Your task to perform on an android device: Is it going to rain this weekend? Image 0: 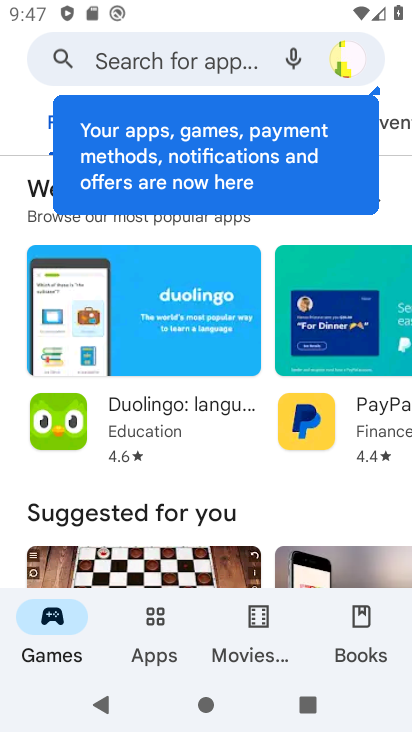
Step 0: press home button
Your task to perform on an android device: Is it going to rain this weekend? Image 1: 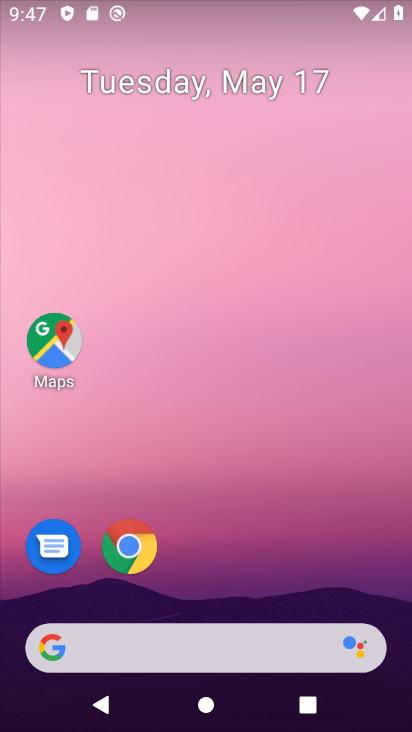
Step 1: drag from (270, 595) to (238, 225)
Your task to perform on an android device: Is it going to rain this weekend? Image 2: 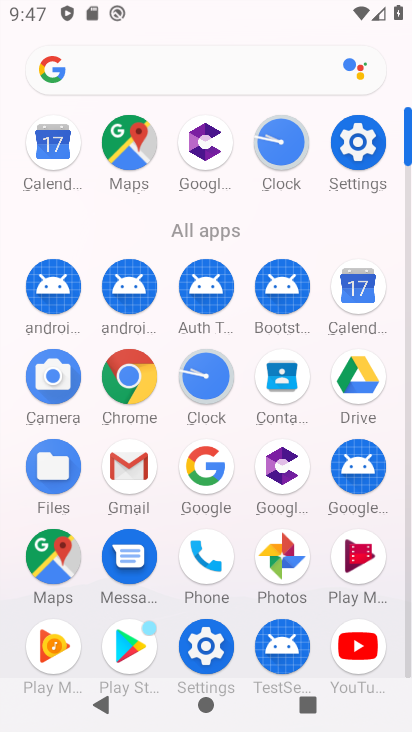
Step 2: click (114, 369)
Your task to perform on an android device: Is it going to rain this weekend? Image 3: 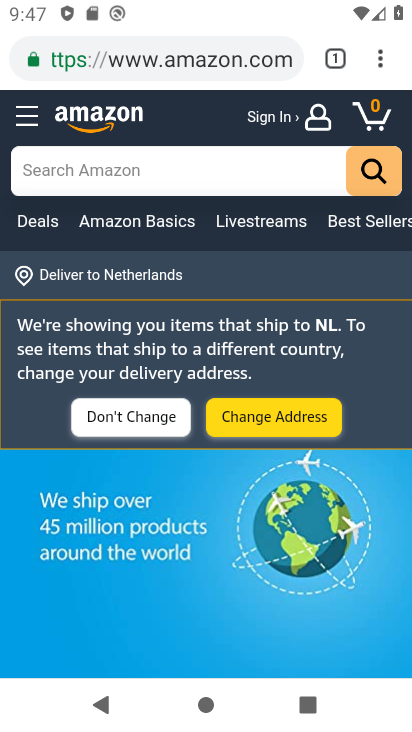
Step 3: click (371, 54)
Your task to perform on an android device: Is it going to rain this weekend? Image 4: 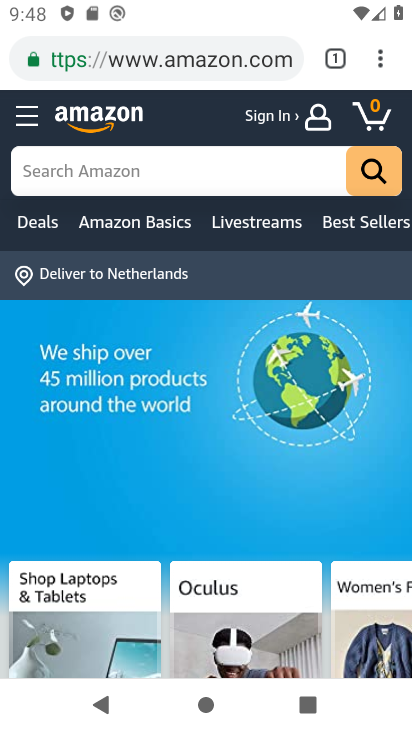
Step 4: click (380, 57)
Your task to perform on an android device: Is it going to rain this weekend? Image 5: 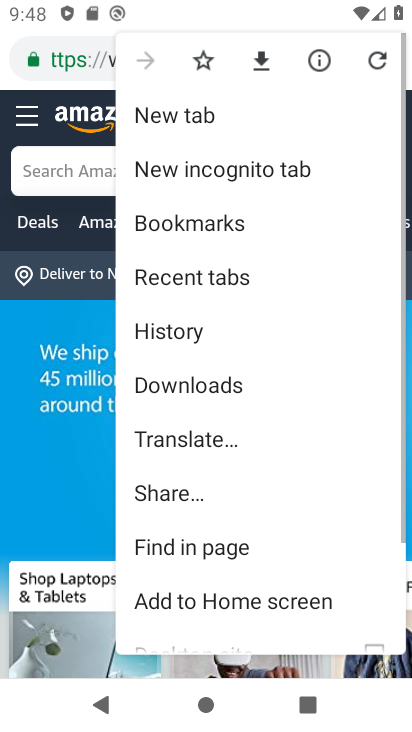
Step 5: click (190, 114)
Your task to perform on an android device: Is it going to rain this weekend? Image 6: 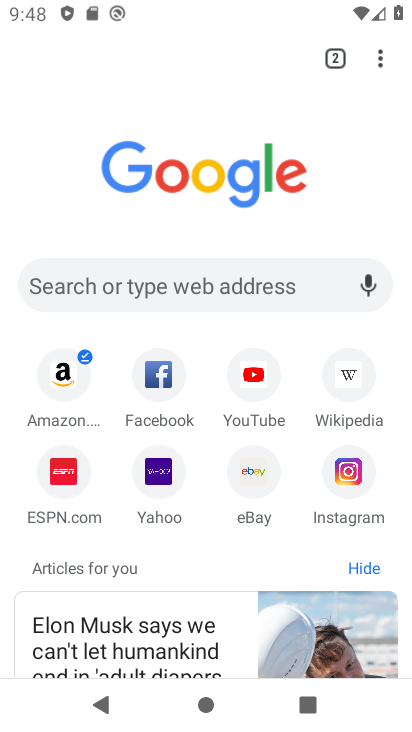
Step 6: click (223, 421)
Your task to perform on an android device: Is it going to rain this weekend? Image 7: 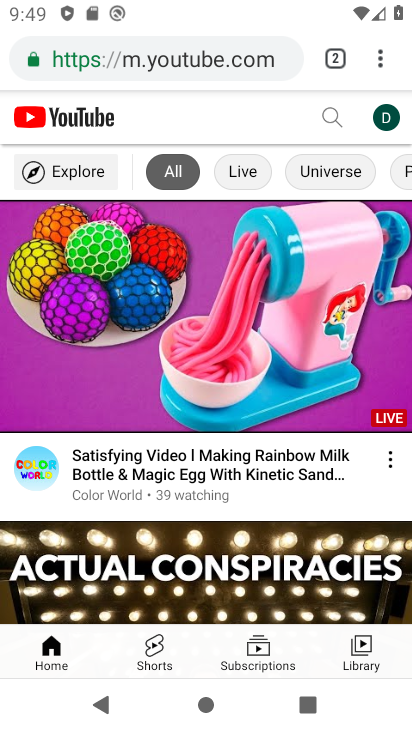
Step 7: click (367, 52)
Your task to perform on an android device: Is it going to rain this weekend? Image 8: 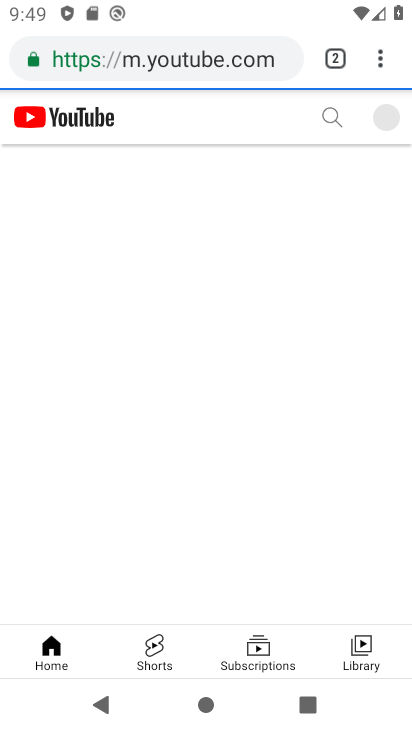
Step 8: click (366, 57)
Your task to perform on an android device: Is it going to rain this weekend? Image 9: 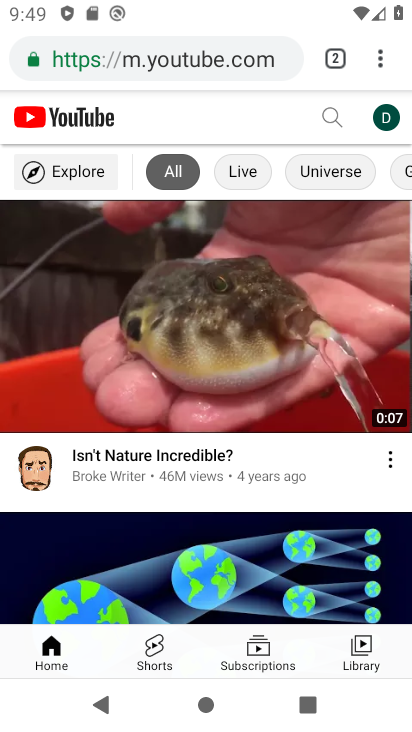
Step 9: click (381, 50)
Your task to perform on an android device: Is it going to rain this weekend? Image 10: 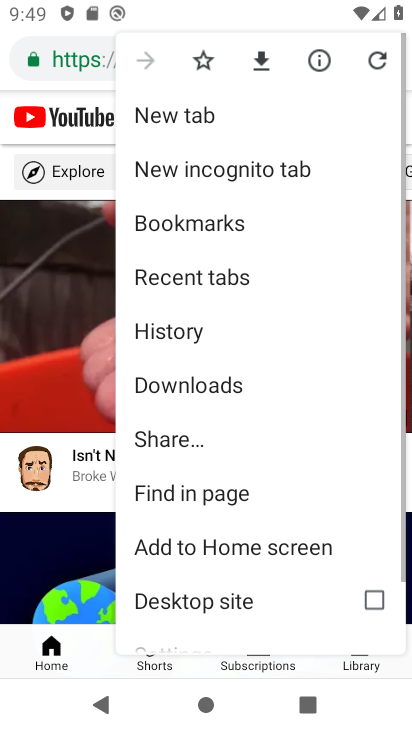
Step 10: click (222, 112)
Your task to perform on an android device: Is it going to rain this weekend? Image 11: 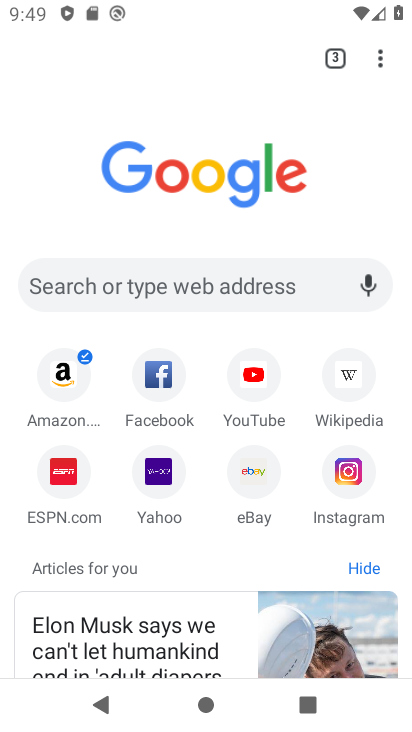
Step 11: click (157, 271)
Your task to perform on an android device: Is it going to rain this weekend? Image 12: 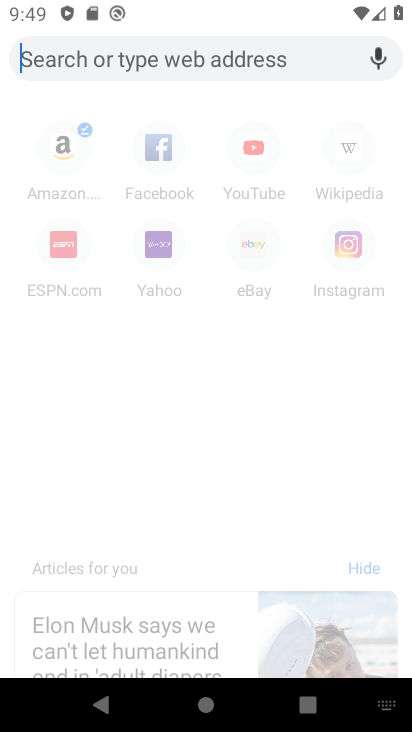
Step 12: type "Is it going to rain this weekend?"
Your task to perform on an android device: Is it going to rain this weekend? Image 13: 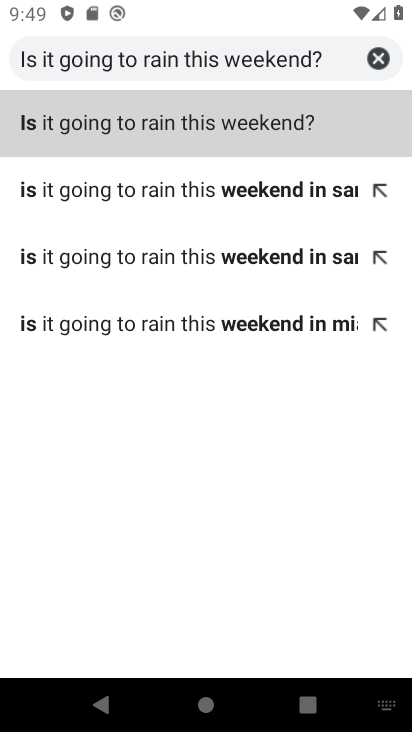
Step 13: click (191, 120)
Your task to perform on an android device: Is it going to rain this weekend? Image 14: 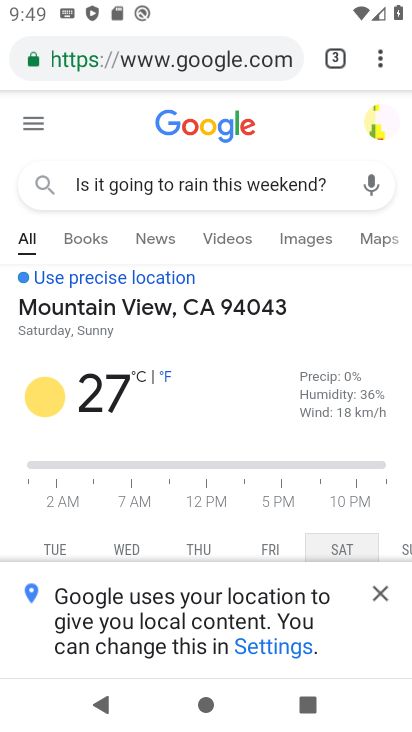
Step 14: task complete